Your task to perform on an android device: delete the emails in spam in the gmail app Image 0: 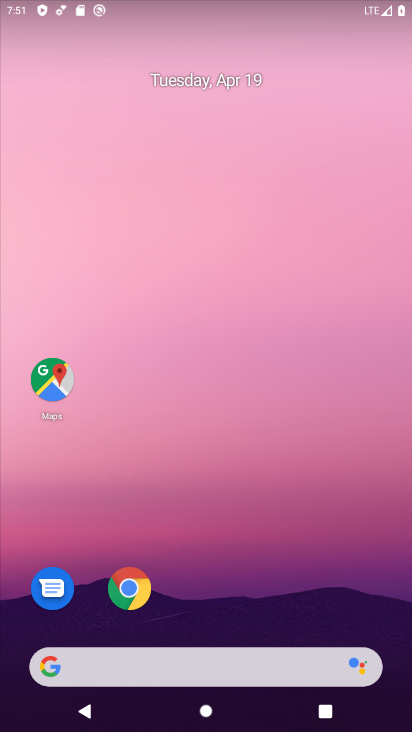
Step 0: drag from (211, 624) to (250, 18)
Your task to perform on an android device: delete the emails in spam in the gmail app Image 1: 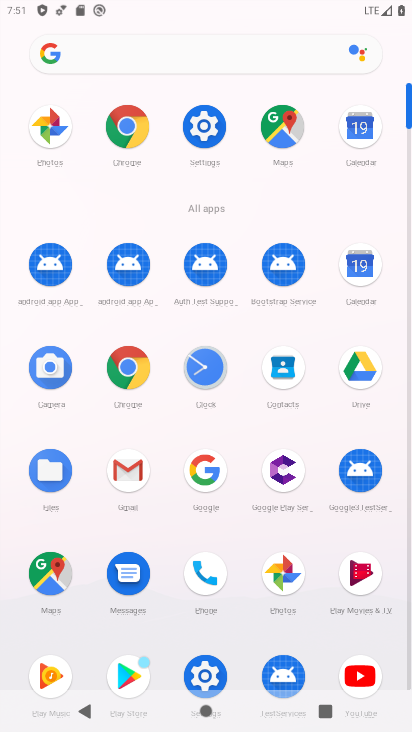
Step 1: click (120, 468)
Your task to perform on an android device: delete the emails in spam in the gmail app Image 2: 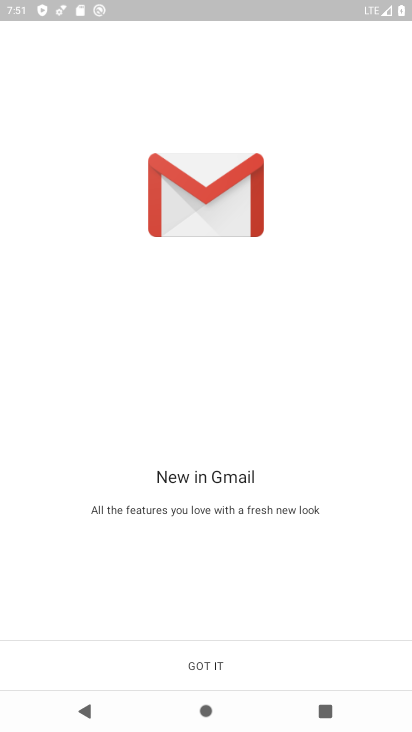
Step 2: click (212, 665)
Your task to perform on an android device: delete the emails in spam in the gmail app Image 3: 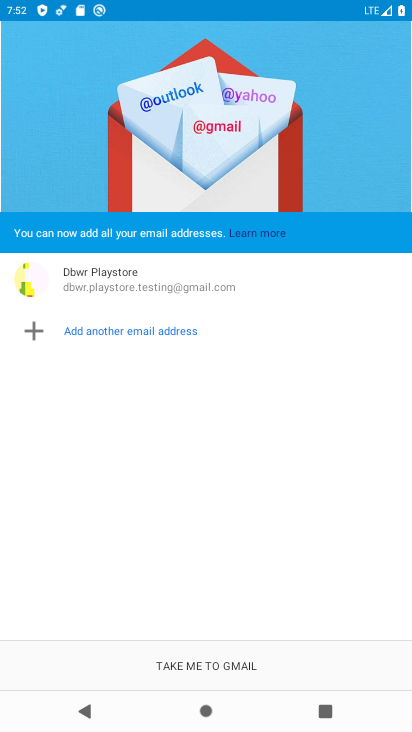
Step 3: click (208, 663)
Your task to perform on an android device: delete the emails in spam in the gmail app Image 4: 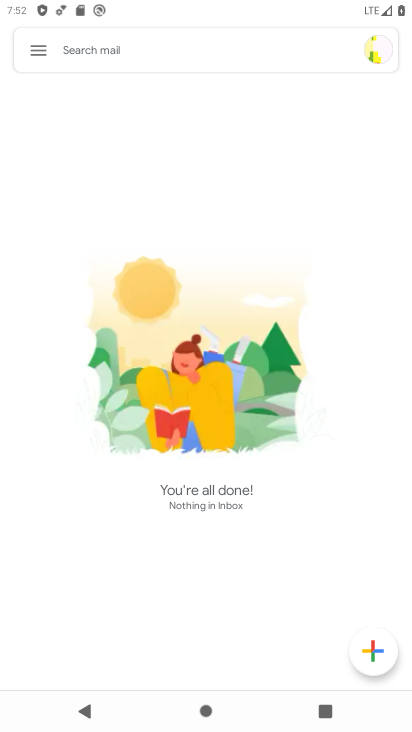
Step 4: click (32, 46)
Your task to perform on an android device: delete the emails in spam in the gmail app Image 5: 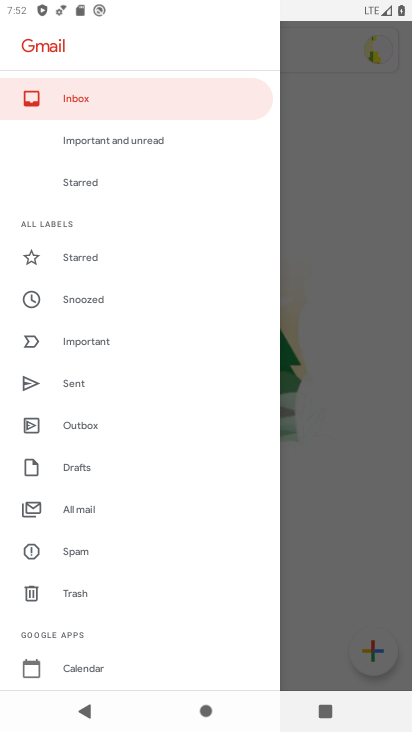
Step 5: click (94, 550)
Your task to perform on an android device: delete the emails in spam in the gmail app Image 6: 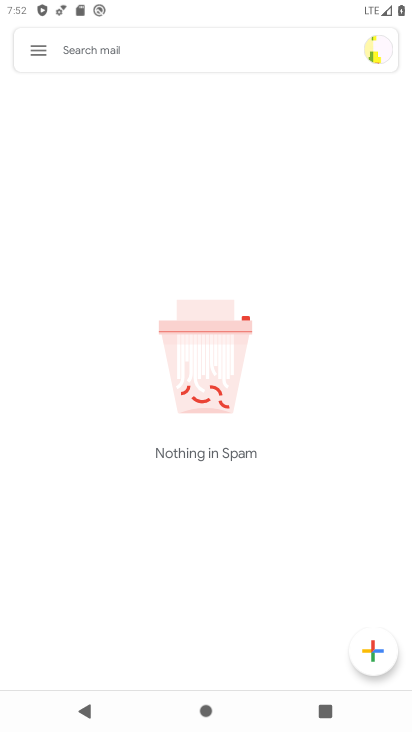
Step 6: task complete